Your task to perform on an android device: star an email in the gmail app Image 0: 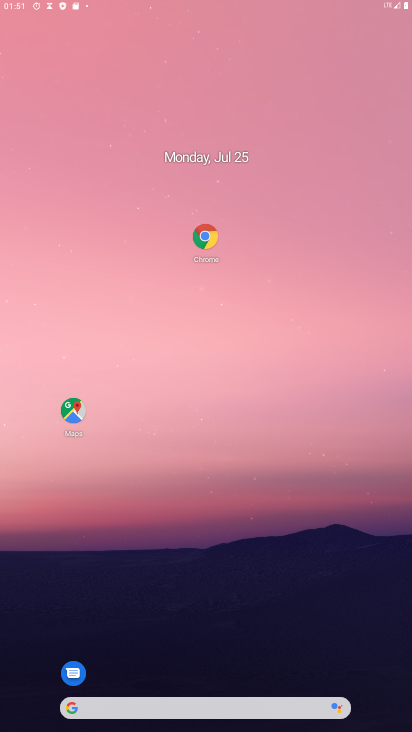
Step 0: click (266, 6)
Your task to perform on an android device: star an email in the gmail app Image 1: 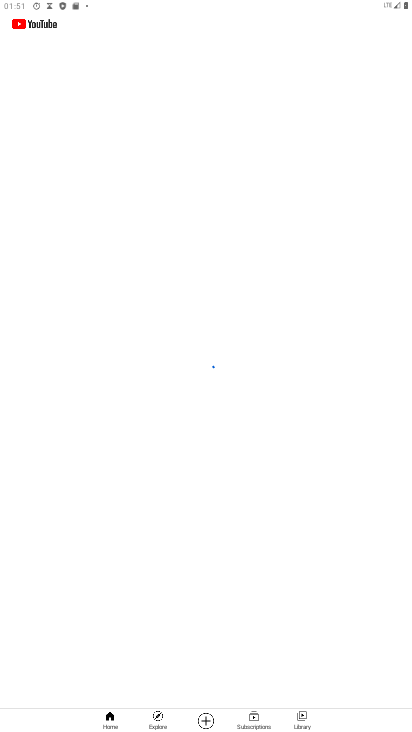
Step 1: press home button
Your task to perform on an android device: star an email in the gmail app Image 2: 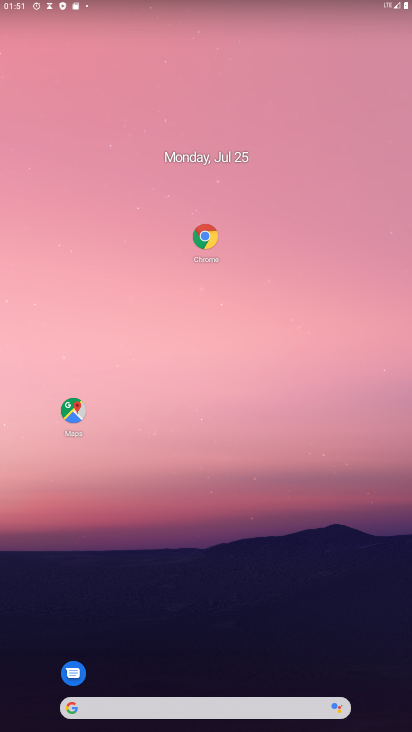
Step 2: drag from (260, 692) to (411, 381)
Your task to perform on an android device: star an email in the gmail app Image 3: 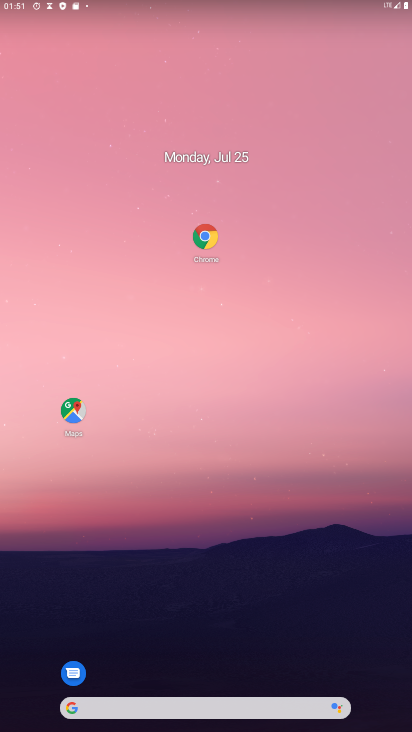
Step 3: drag from (228, 690) to (278, 67)
Your task to perform on an android device: star an email in the gmail app Image 4: 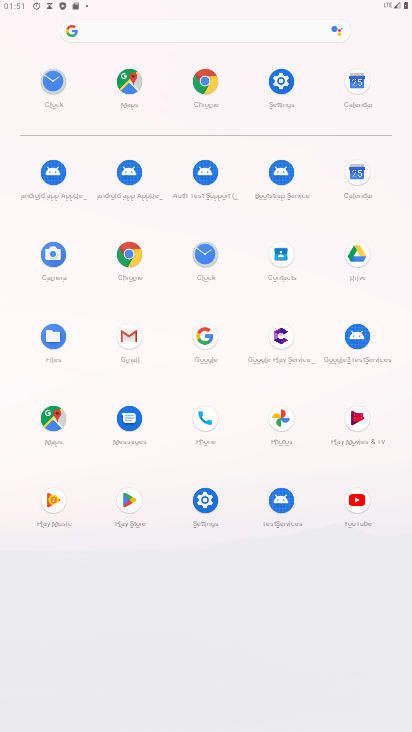
Step 4: click (124, 352)
Your task to perform on an android device: star an email in the gmail app Image 5: 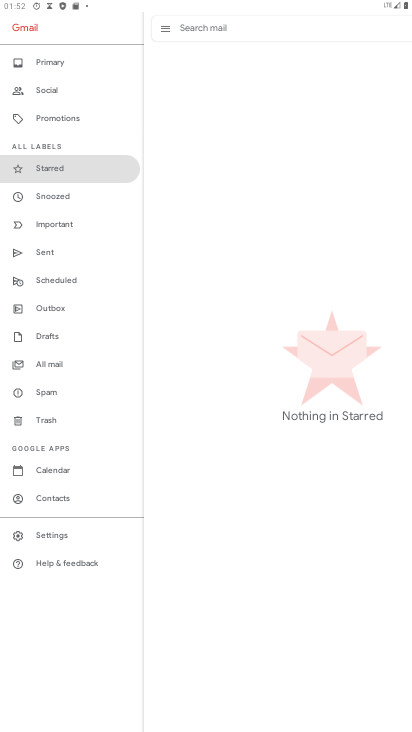
Step 5: task complete